Your task to perform on an android device: Search for sushi restaurants on Maps Image 0: 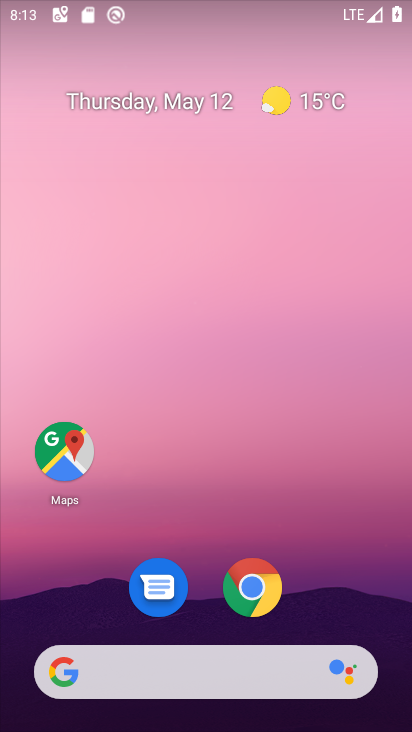
Step 0: drag from (403, 619) to (232, 15)
Your task to perform on an android device: Search for sushi restaurants on Maps Image 1: 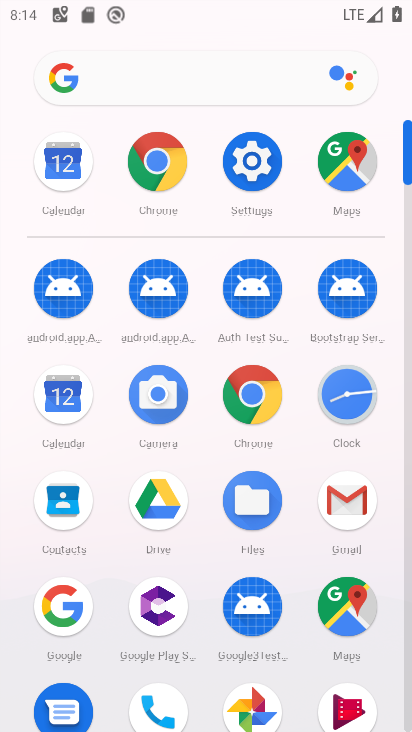
Step 1: click (341, 189)
Your task to perform on an android device: Search for sushi restaurants on Maps Image 2: 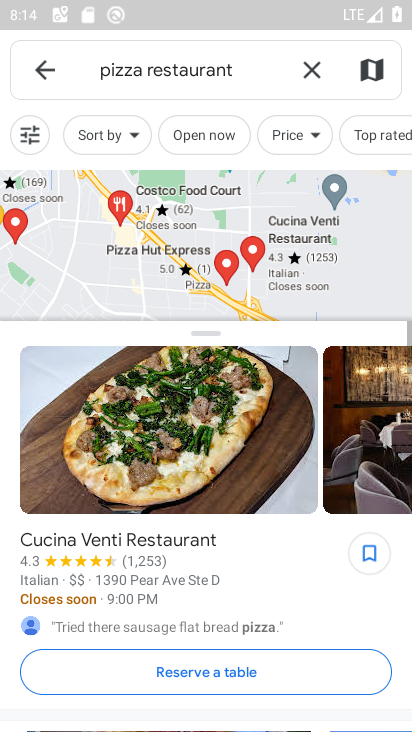
Step 2: click (312, 70)
Your task to perform on an android device: Search for sushi restaurants on Maps Image 3: 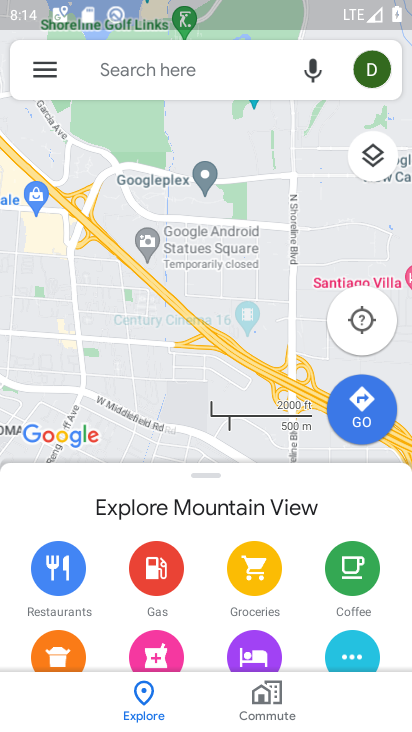
Step 3: click (165, 61)
Your task to perform on an android device: Search for sushi restaurants on Maps Image 4: 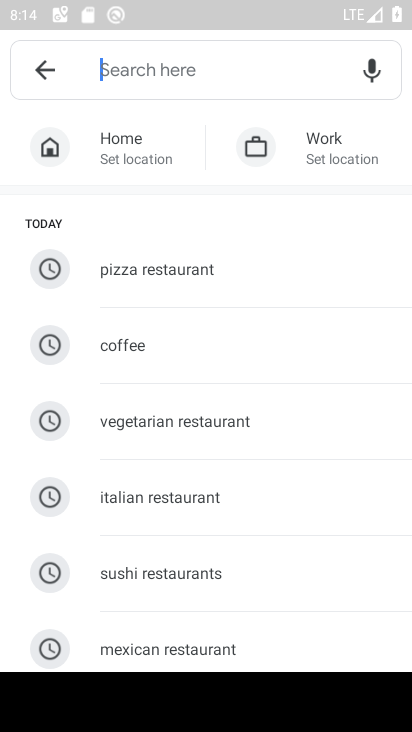
Step 4: click (156, 586)
Your task to perform on an android device: Search for sushi restaurants on Maps Image 5: 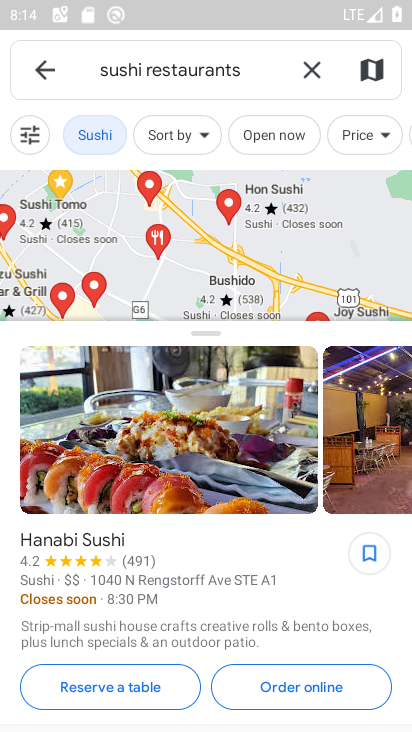
Step 5: task complete